Your task to perform on an android device: open a new tab in the chrome app Image 0: 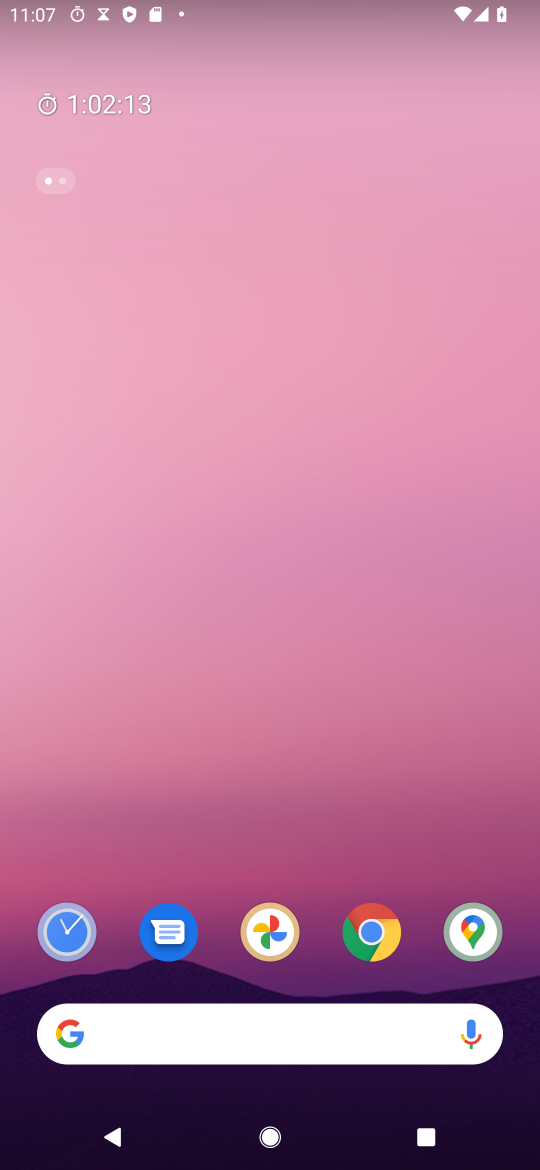
Step 0: click (372, 930)
Your task to perform on an android device: open a new tab in the chrome app Image 1: 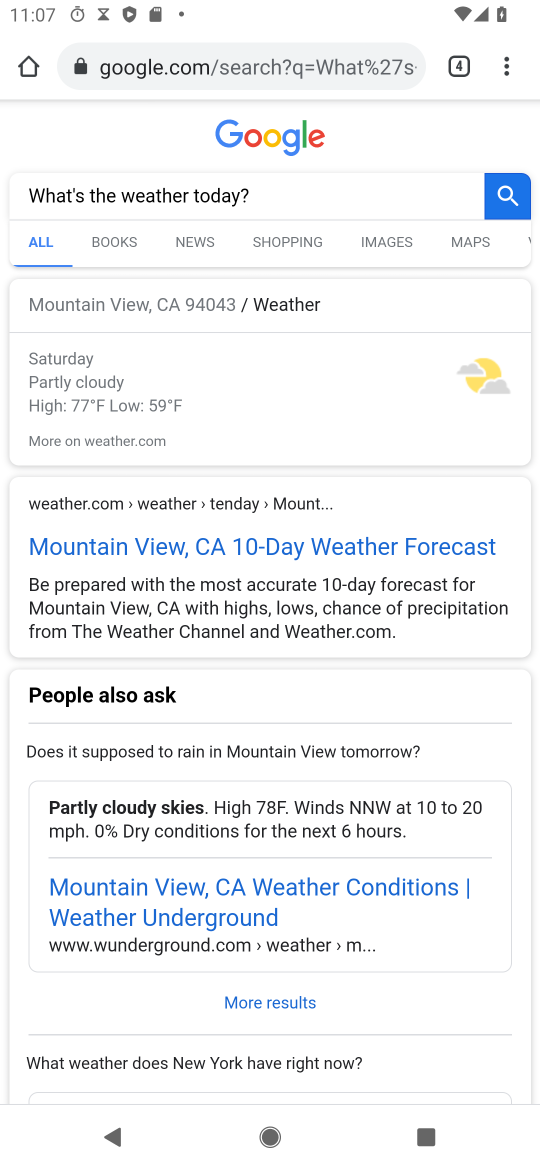
Step 1: click (510, 43)
Your task to perform on an android device: open a new tab in the chrome app Image 2: 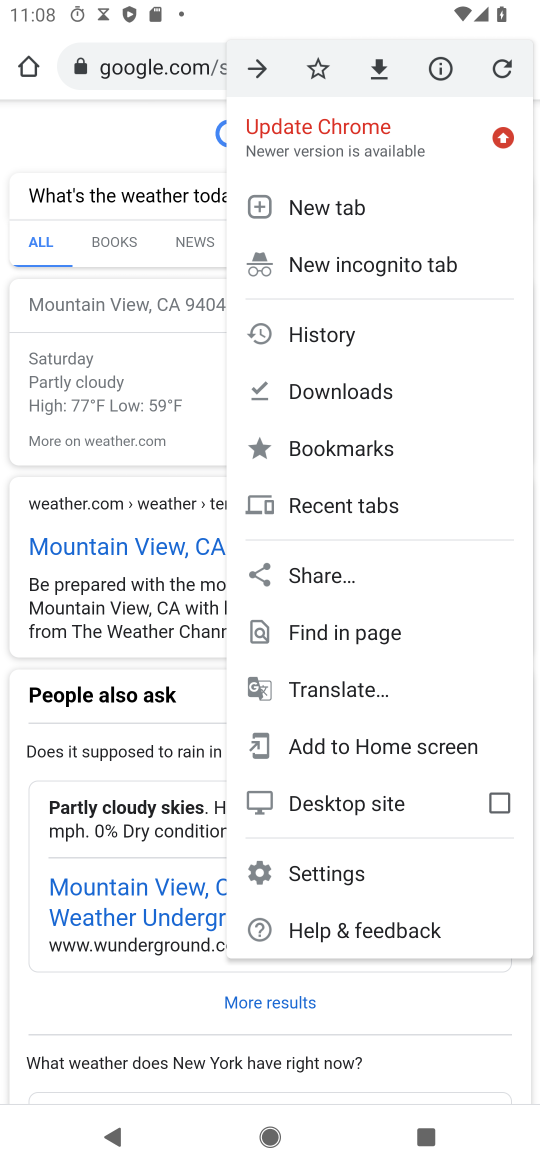
Step 2: click (424, 200)
Your task to perform on an android device: open a new tab in the chrome app Image 3: 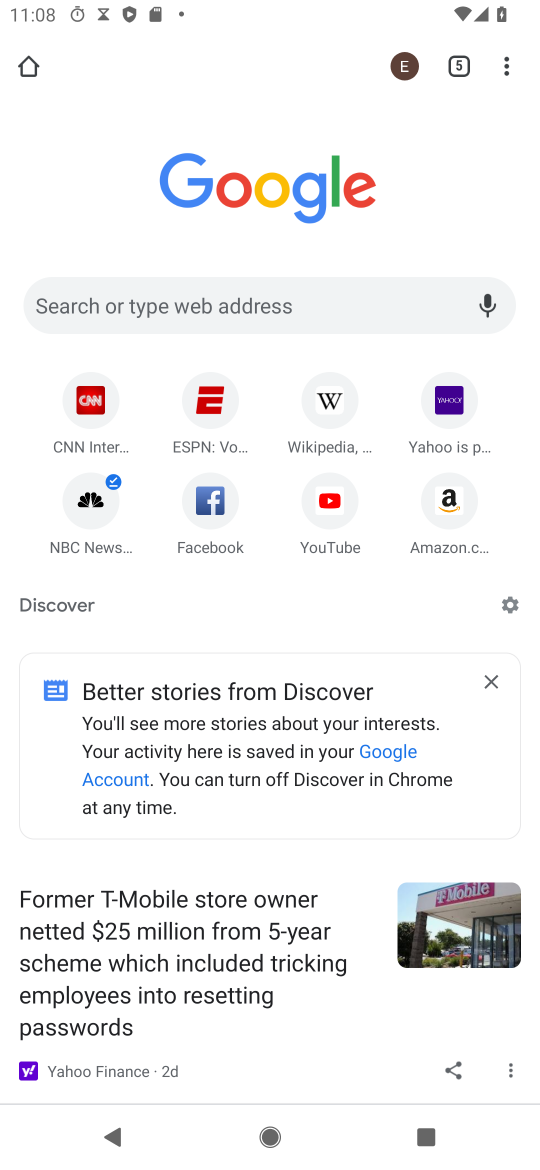
Step 3: task complete